Your task to perform on an android device: Open settings Image 0: 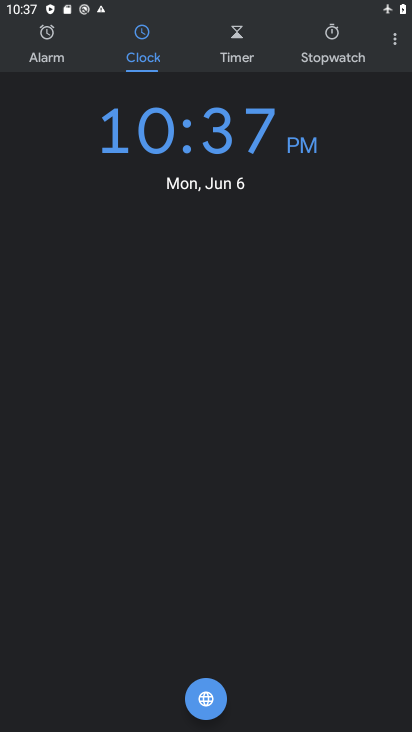
Step 0: press home button
Your task to perform on an android device: Open settings Image 1: 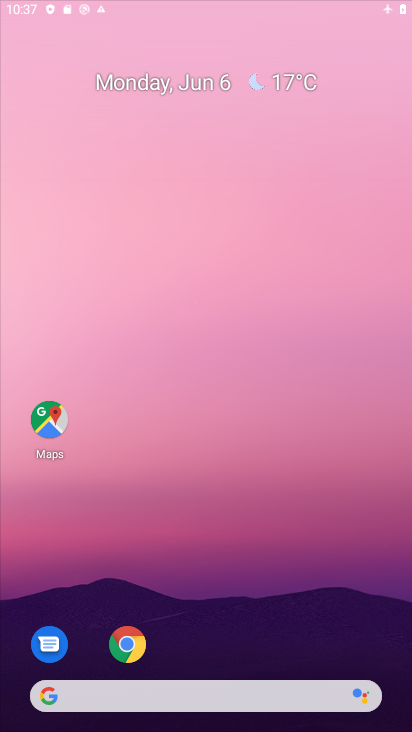
Step 1: drag from (354, 595) to (324, 6)
Your task to perform on an android device: Open settings Image 2: 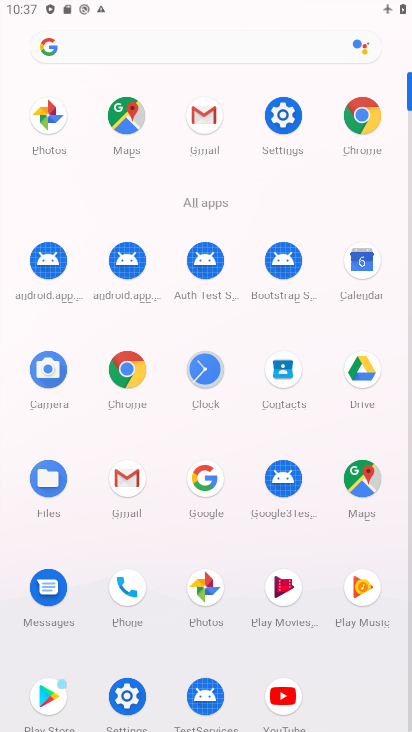
Step 2: click (293, 111)
Your task to perform on an android device: Open settings Image 3: 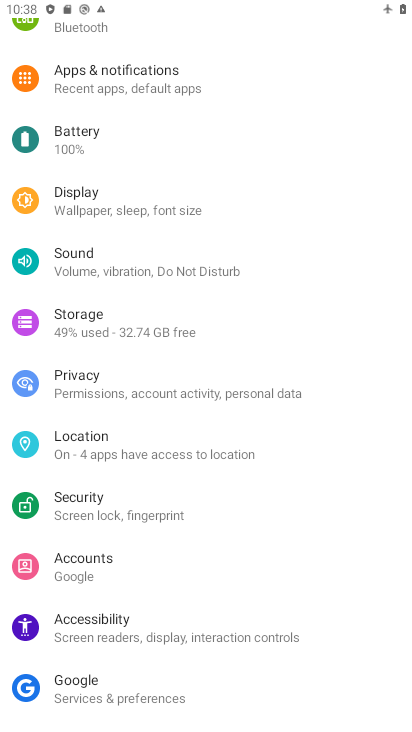
Step 3: task complete